Your task to perform on an android device: Clear the cart on costco. Add "alienware aurora" to the cart on costco, then select checkout. Image 0: 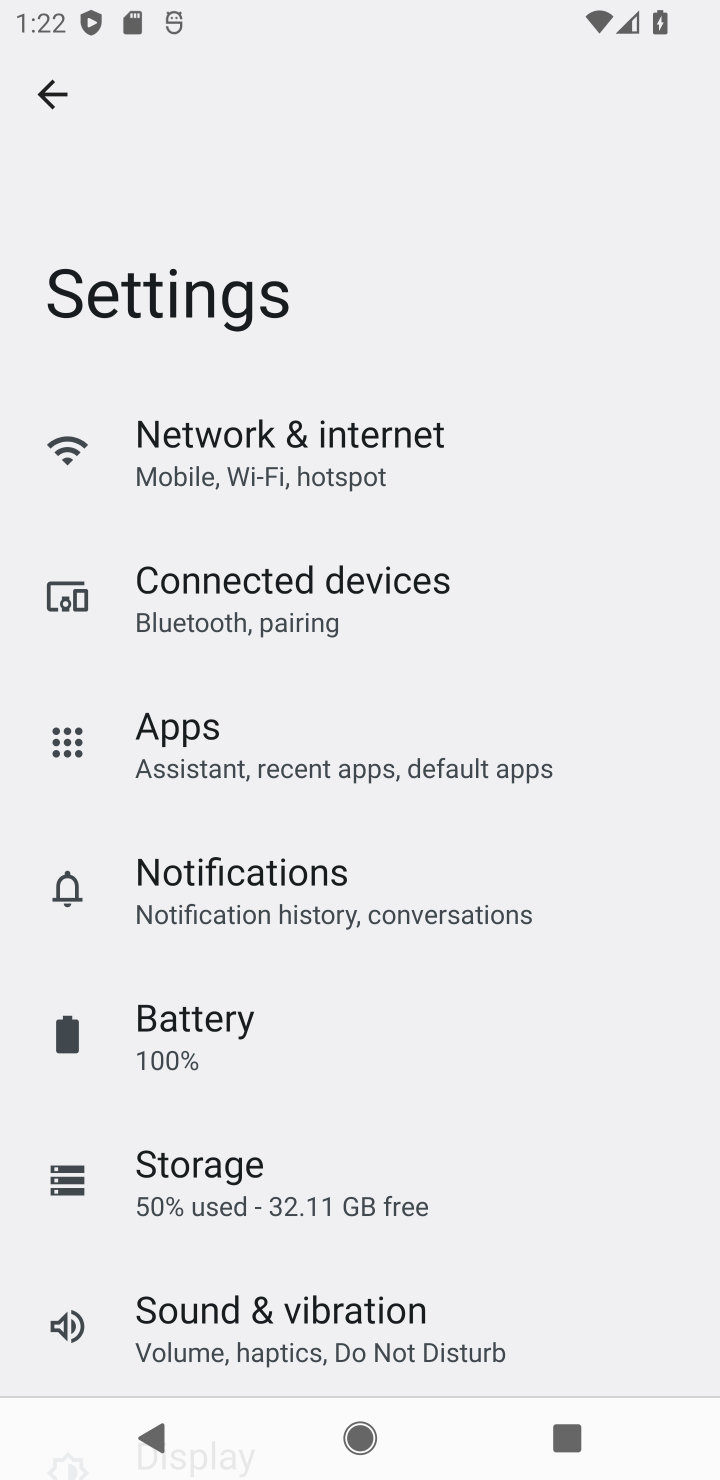
Step 0: press home button
Your task to perform on an android device: Clear the cart on costco. Add "alienware aurora" to the cart on costco, then select checkout. Image 1: 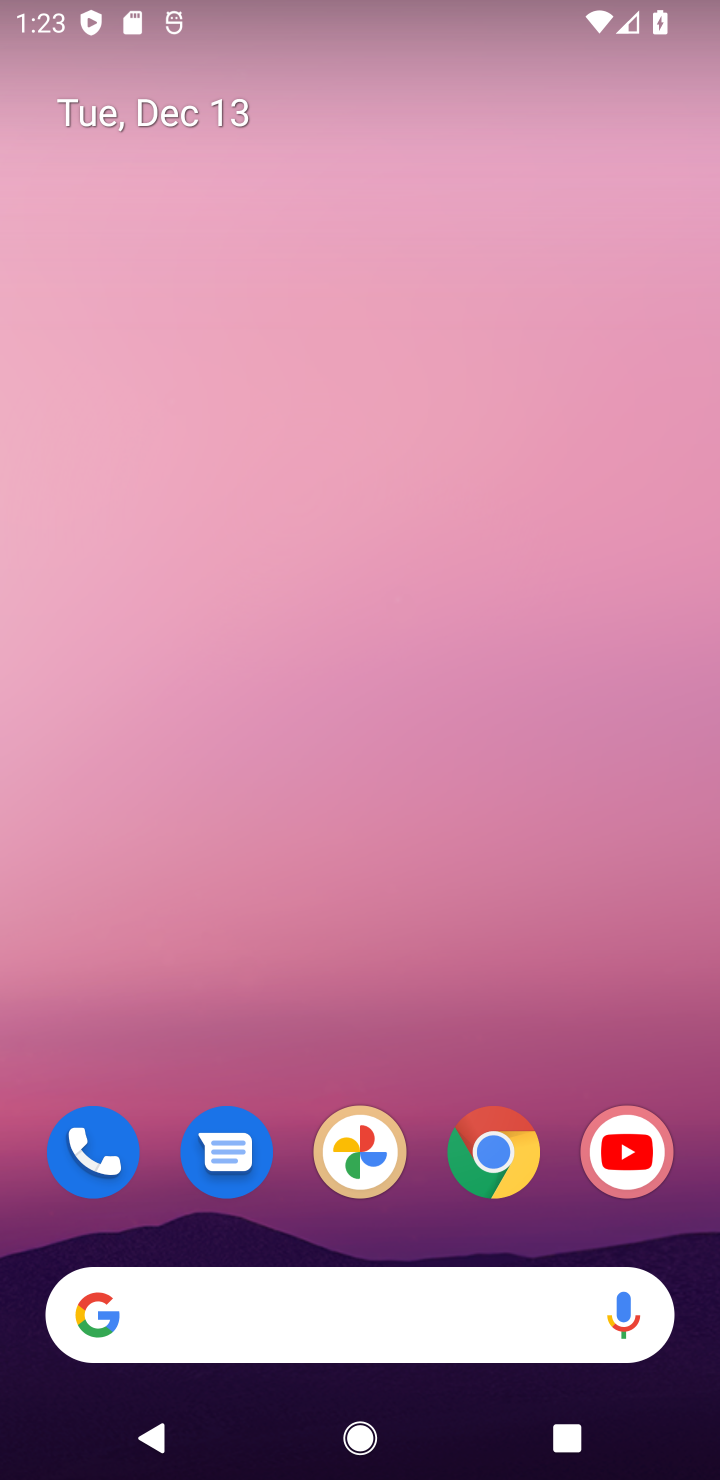
Step 1: drag from (284, 1284) to (284, 266)
Your task to perform on an android device: Clear the cart on costco. Add "alienware aurora" to the cart on costco, then select checkout. Image 2: 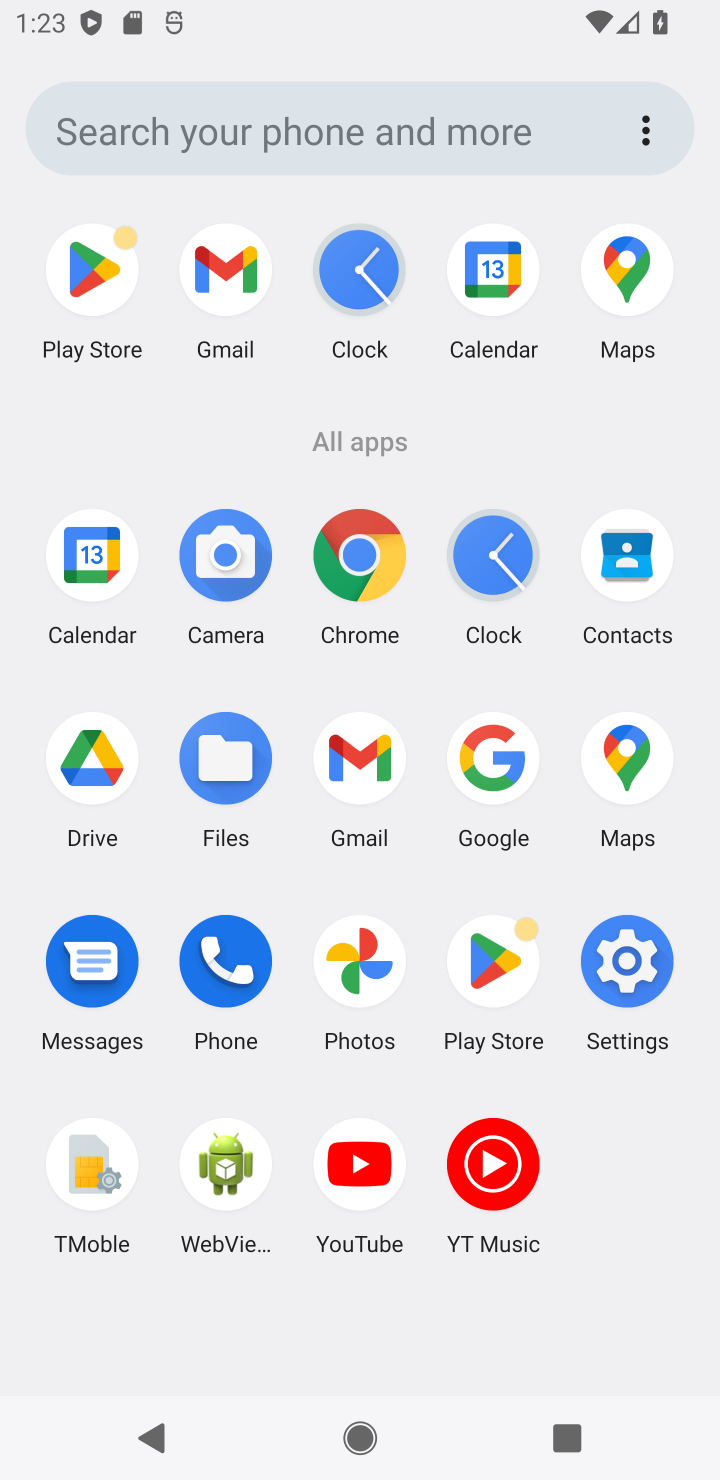
Step 2: click (476, 757)
Your task to perform on an android device: Clear the cart on costco. Add "alienware aurora" to the cart on costco, then select checkout. Image 3: 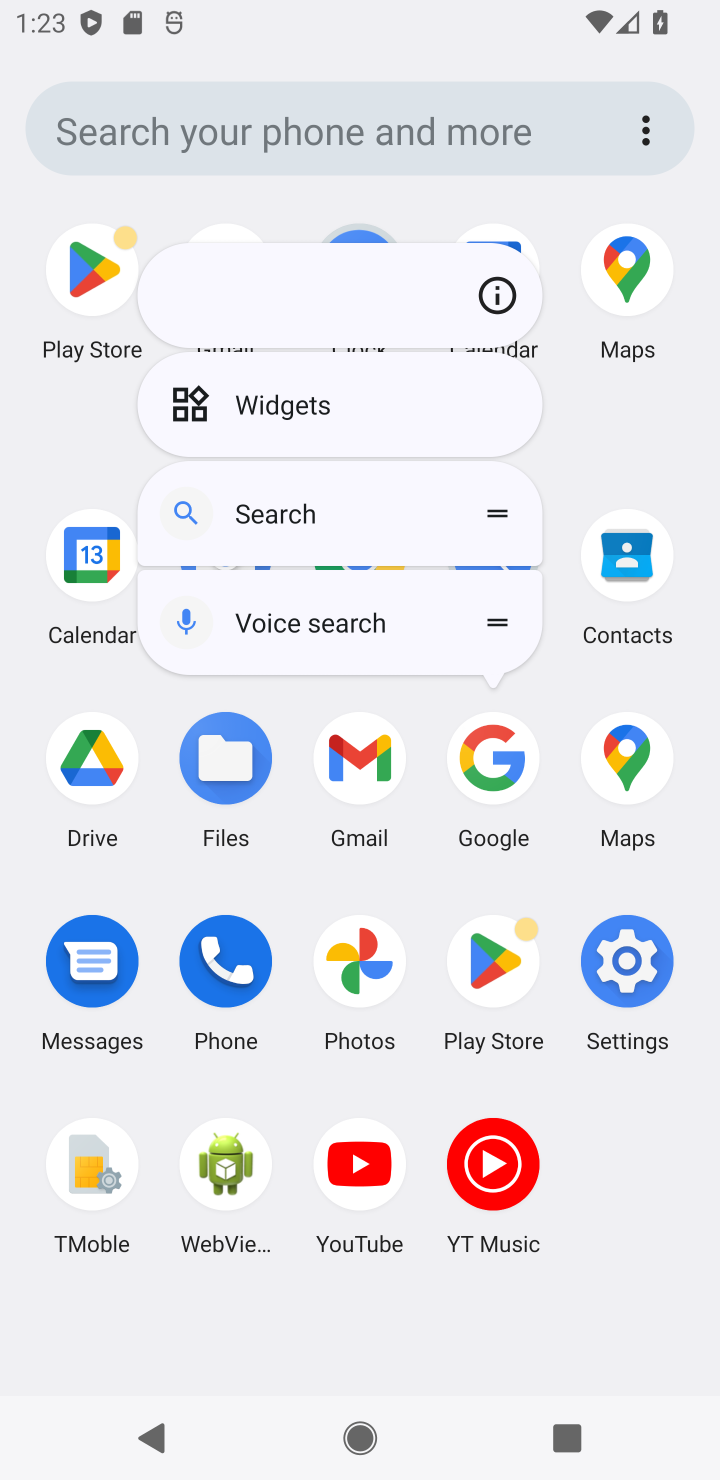
Step 3: click (491, 766)
Your task to perform on an android device: Clear the cart on costco. Add "alienware aurora" to the cart on costco, then select checkout. Image 4: 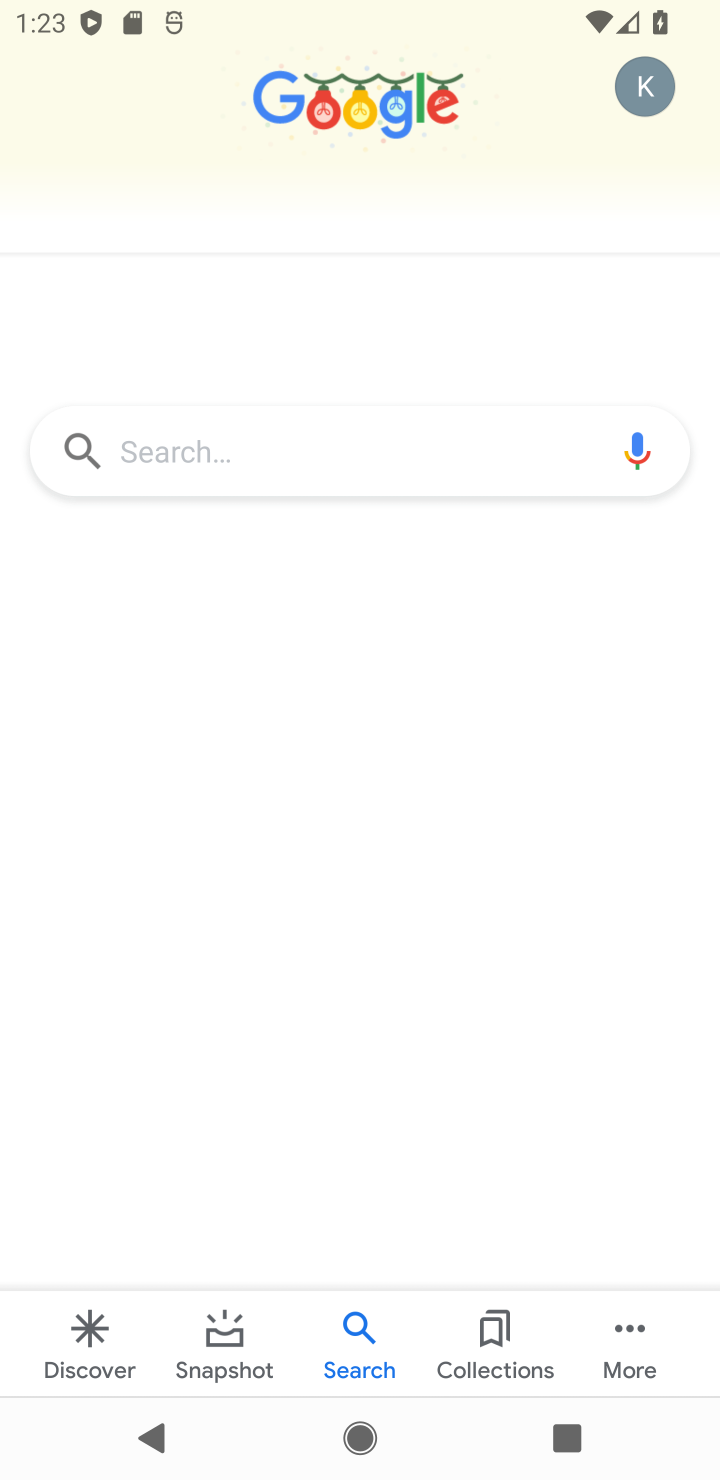
Step 4: click (210, 459)
Your task to perform on an android device: Clear the cart on costco. Add "alienware aurora" to the cart on costco, then select checkout. Image 5: 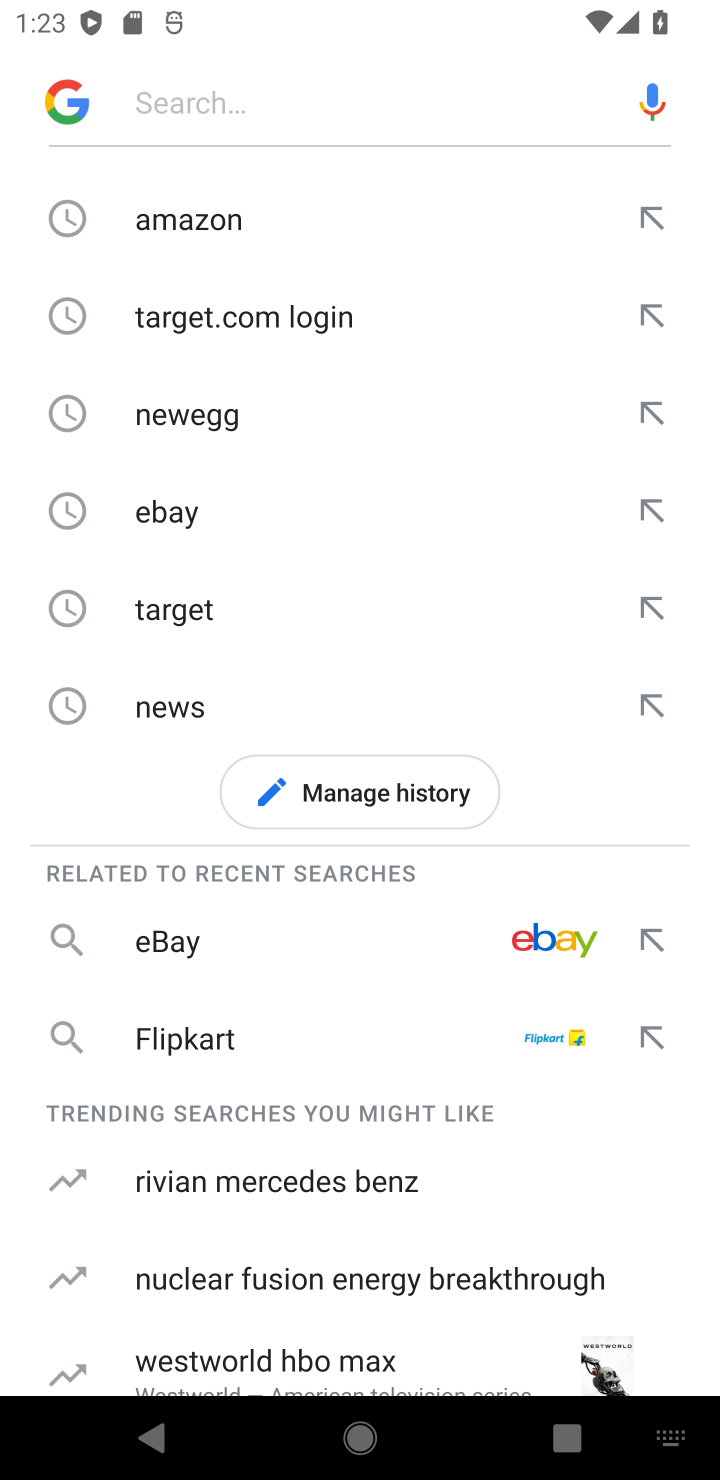
Step 5: type "costco"
Your task to perform on an android device: Clear the cart on costco. Add "alienware aurora" to the cart on costco, then select checkout. Image 6: 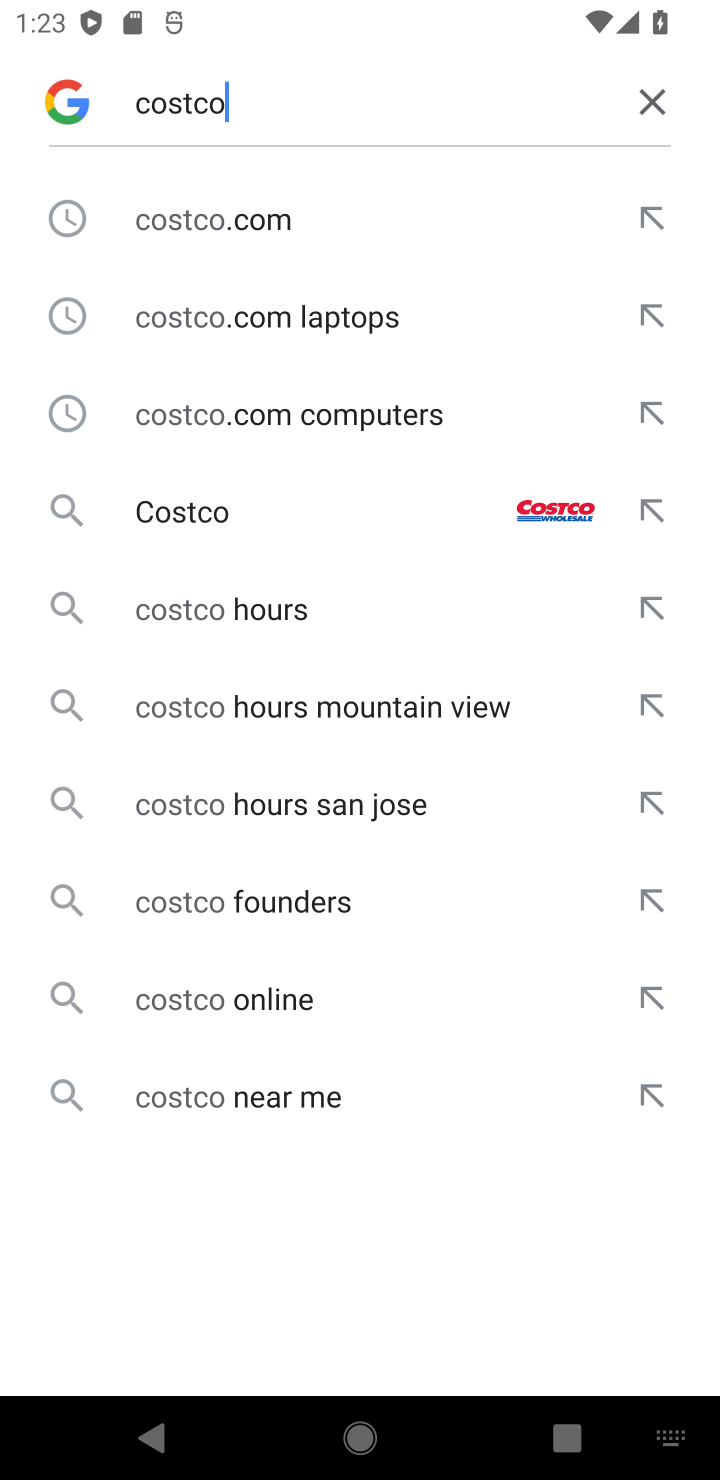
Step 6: click (240, 228)
Your task to perform on an android device: Clear the cart on costco. Add "alienware aurora" to the cart on costco, then select checkout. Image 7: 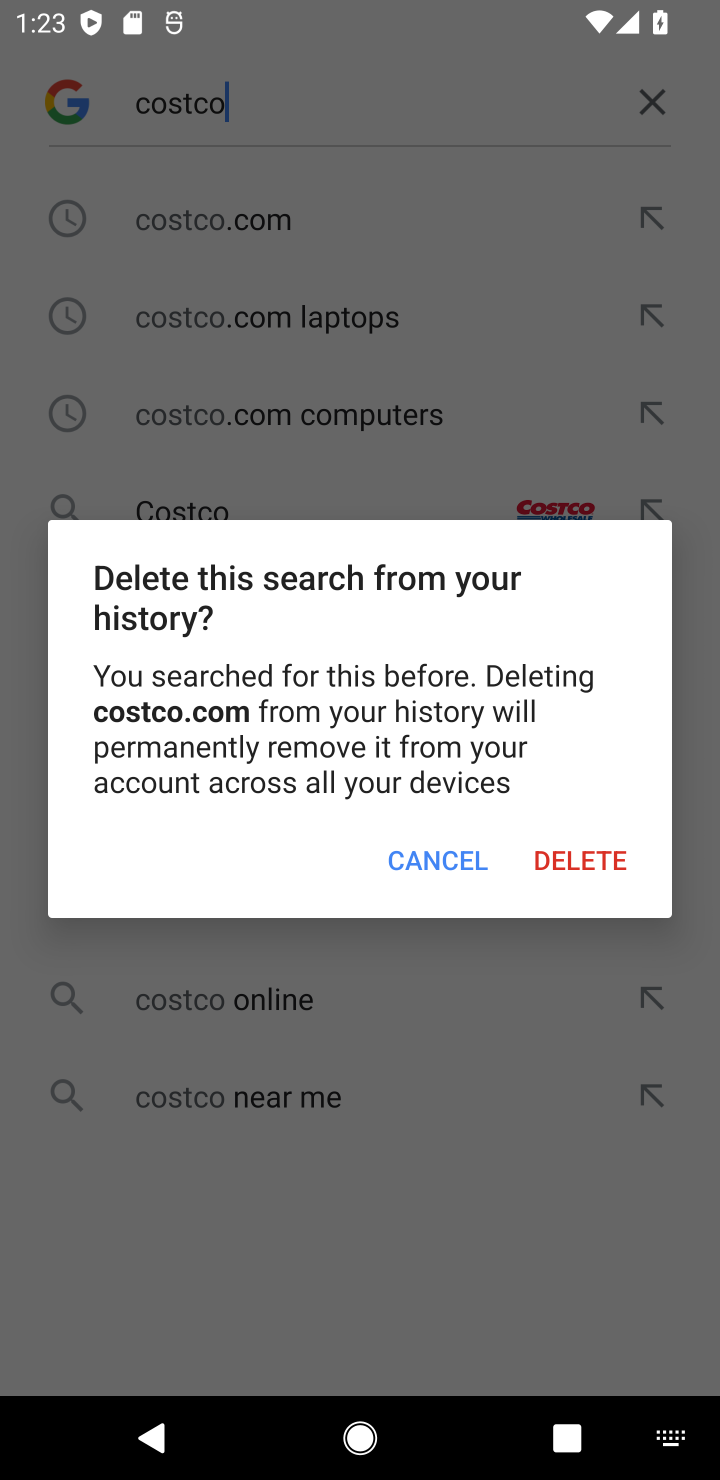
Step 7: click (419, 873)
Your task to perform on an android device: Clear the cart on costco. Add "alienware aurora" to the cart on costco, then select checkout. Image 8: 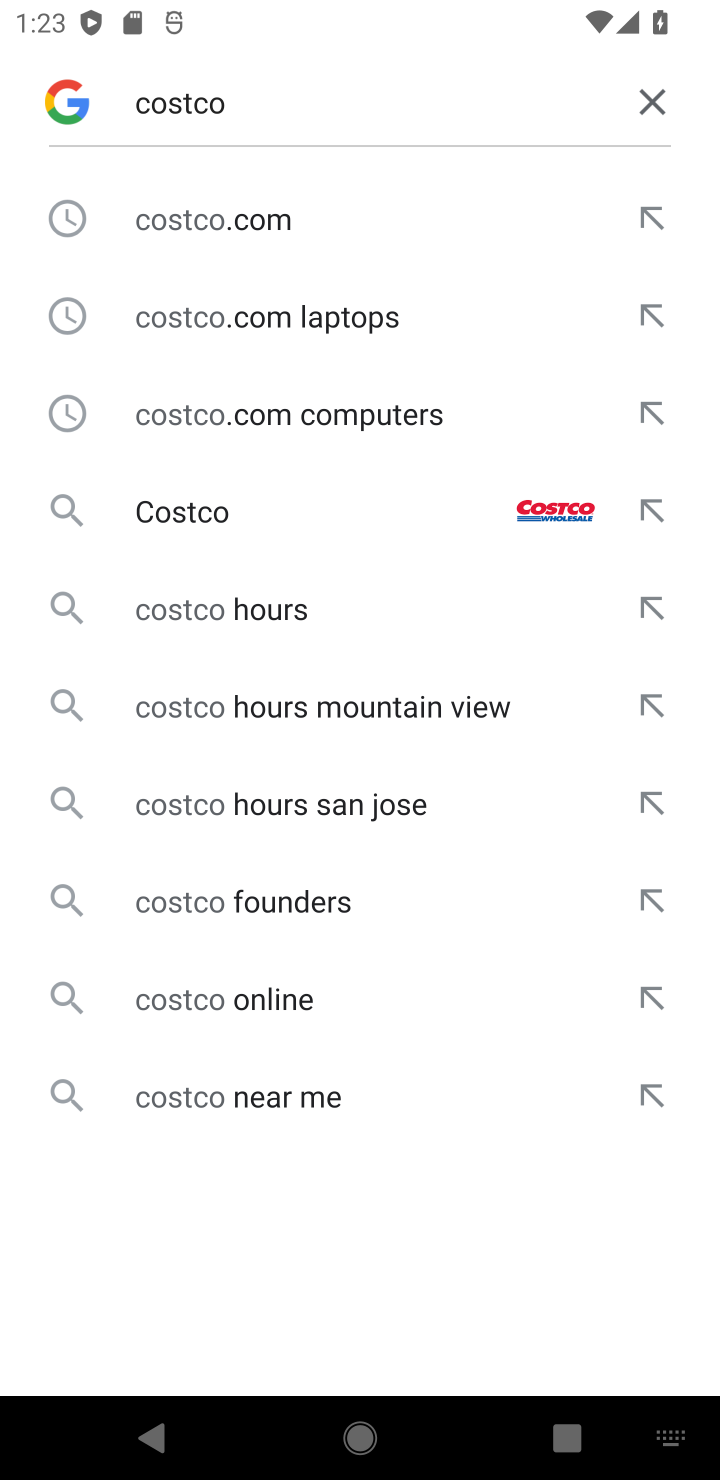
Step 8: click (184, 224)
Your task to perform on an android device: Clear the cart on costco. Add "alienware aurora" to the cart on costco, then select checkout. Image 9: 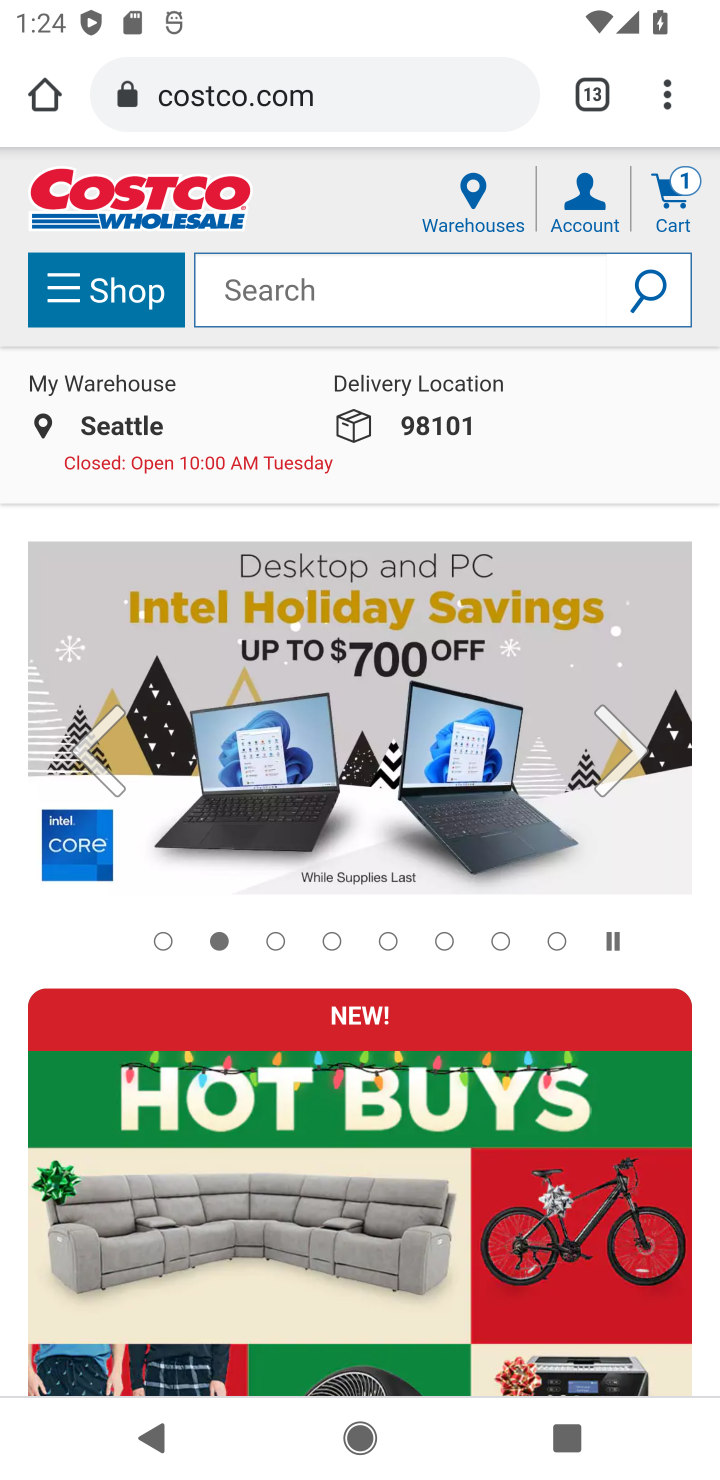
Step 9: click (676, 192)
Your task to perform on an android device: Clear the cart on costco. Add "alienware aurora" to the cart on costco, then select checkout. Image 10: 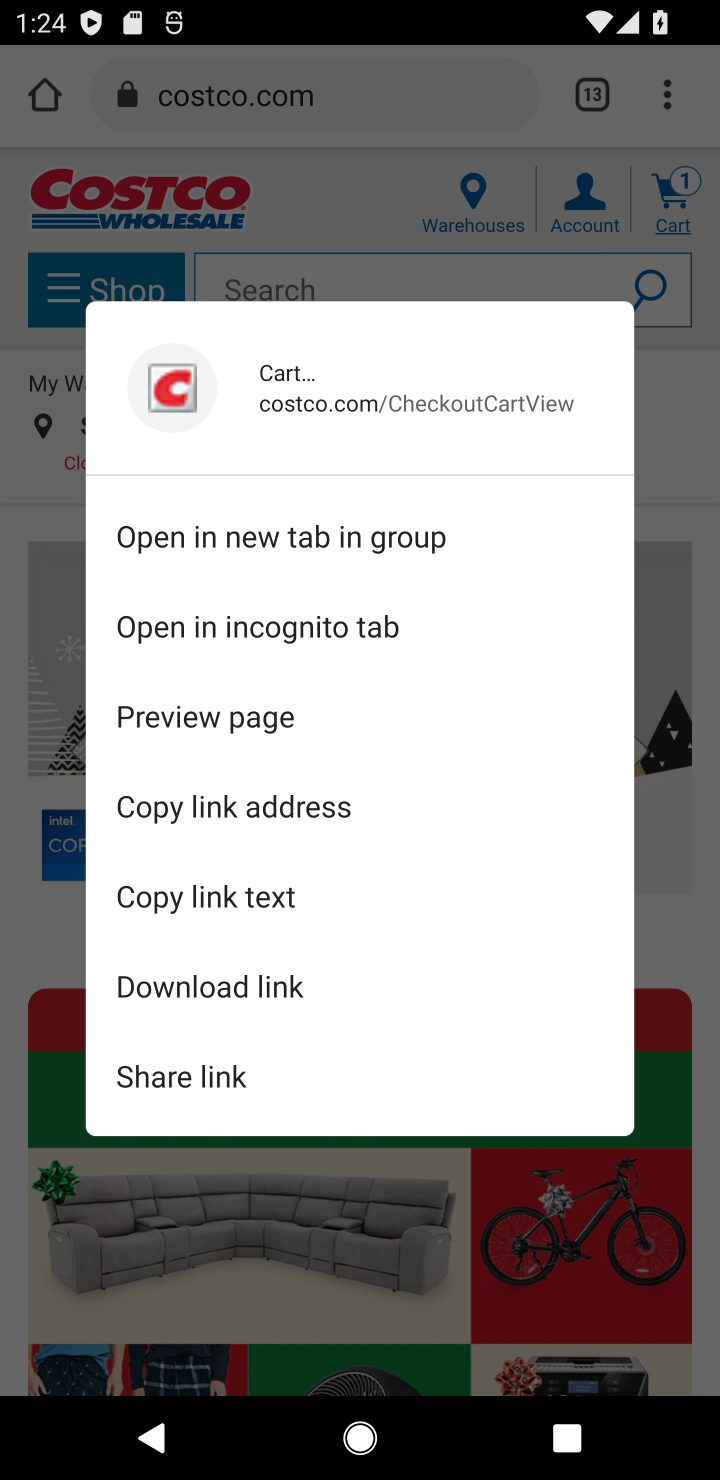
Step 10: click (665, 460)
Your task to perform on an android device: Clear the cart on costco. Add "alienware aurora" to the cart on costco, then select checkout. Image 11: 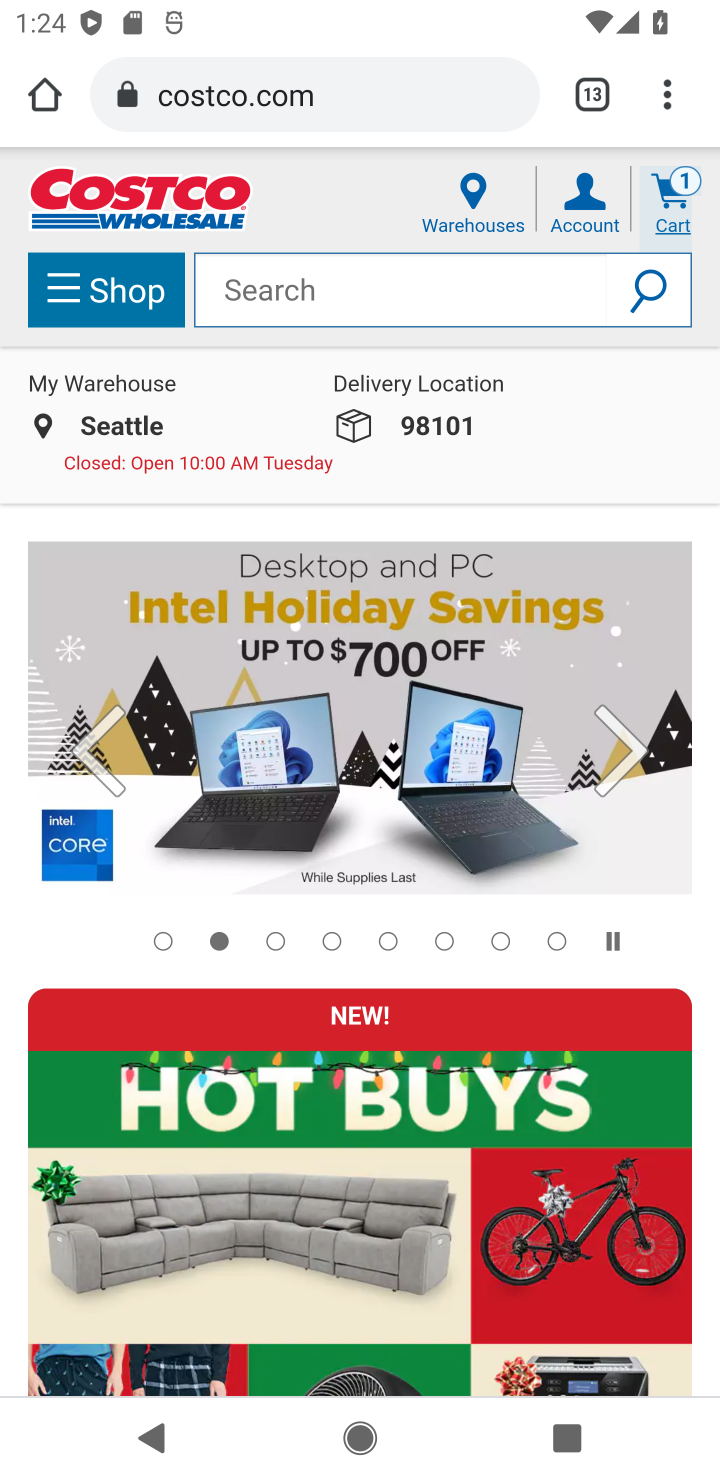
Step 11: click (661, 200)
Your task to perform on an android device: Clear the cart on costco. Add "alienware aurora" to the cart on costco, then select checkout. Image 12: 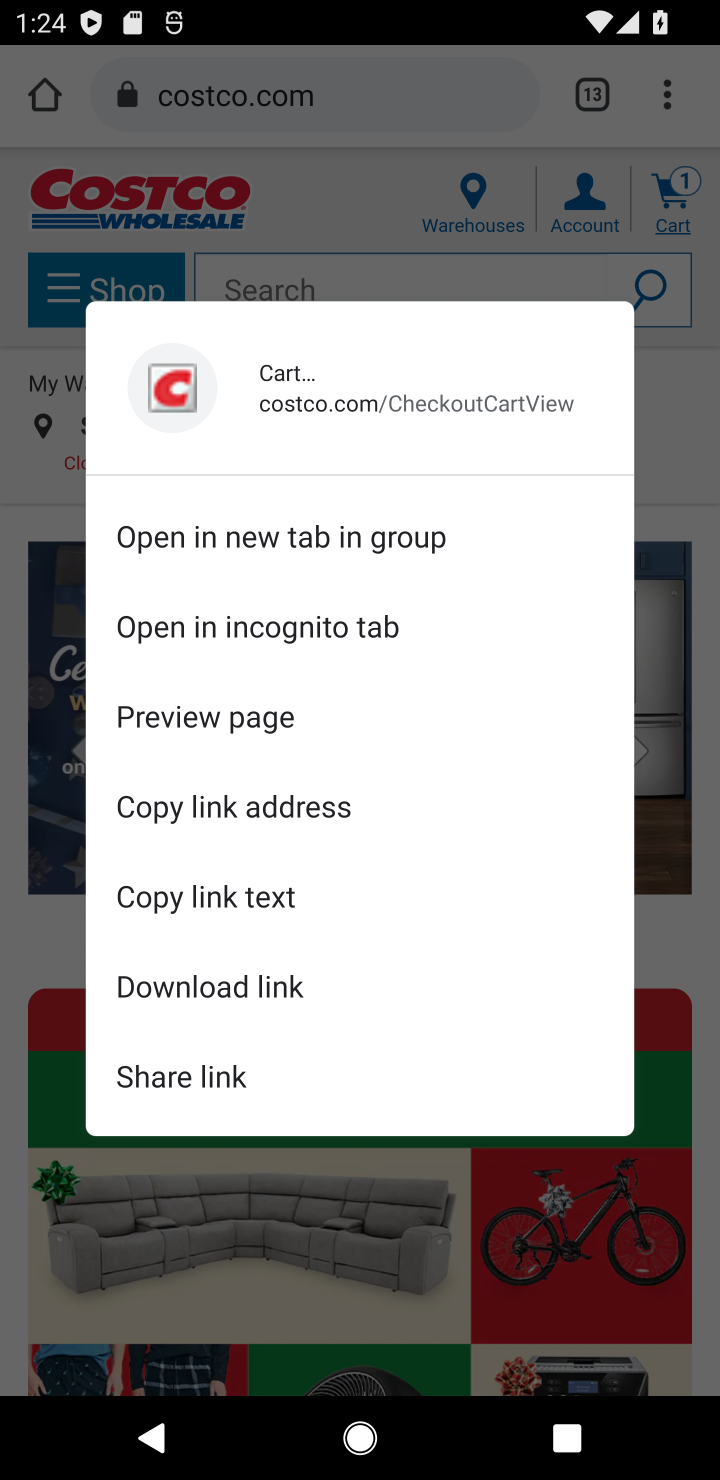
Step 12: click (652, 492)
Your task to perform on an android device: Clear the cart on costco. Add "alienware aurora" to the cart on costco, then select checkout. Image 13: 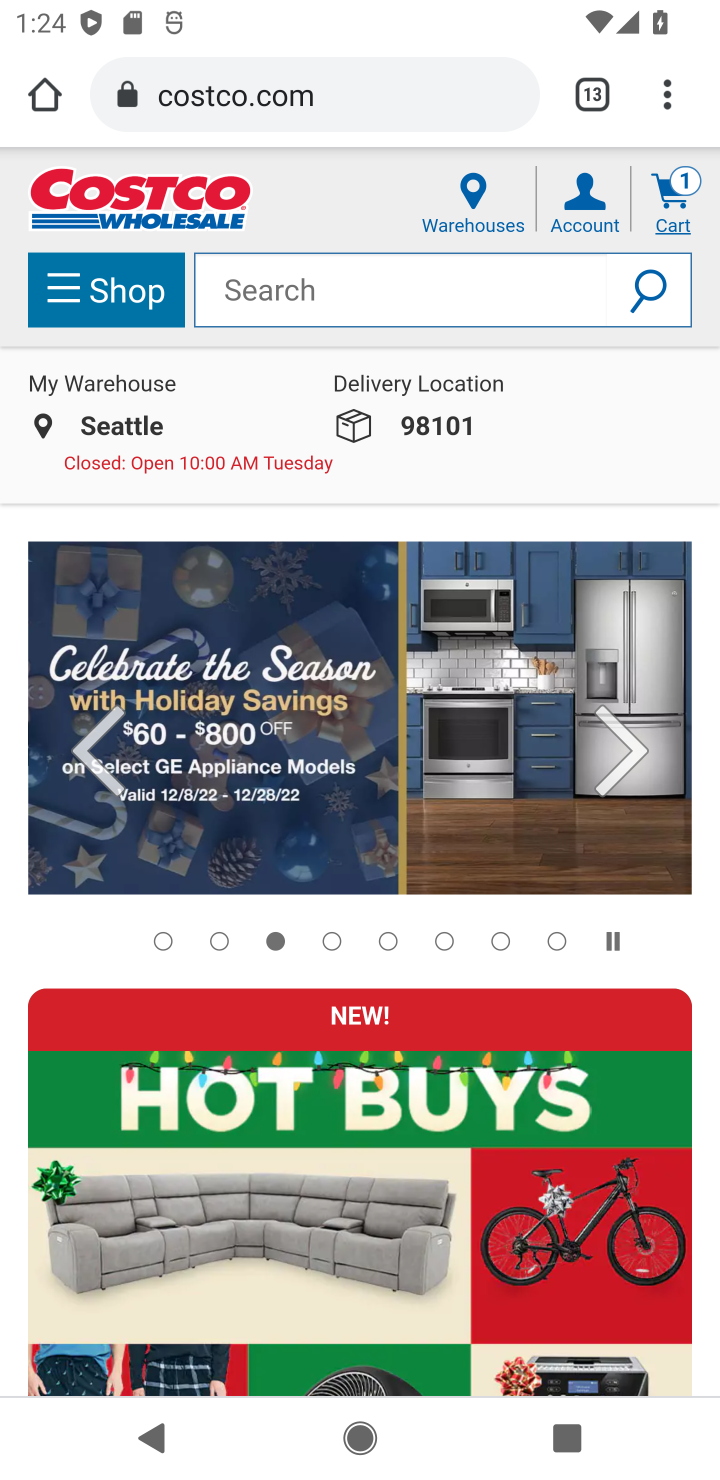
Step 13: click (662, 196)
Your task to perform on an android device: Clear the cart on costco. Add "alienware aurora" to the cart on costco, then select checkout. Image 14: 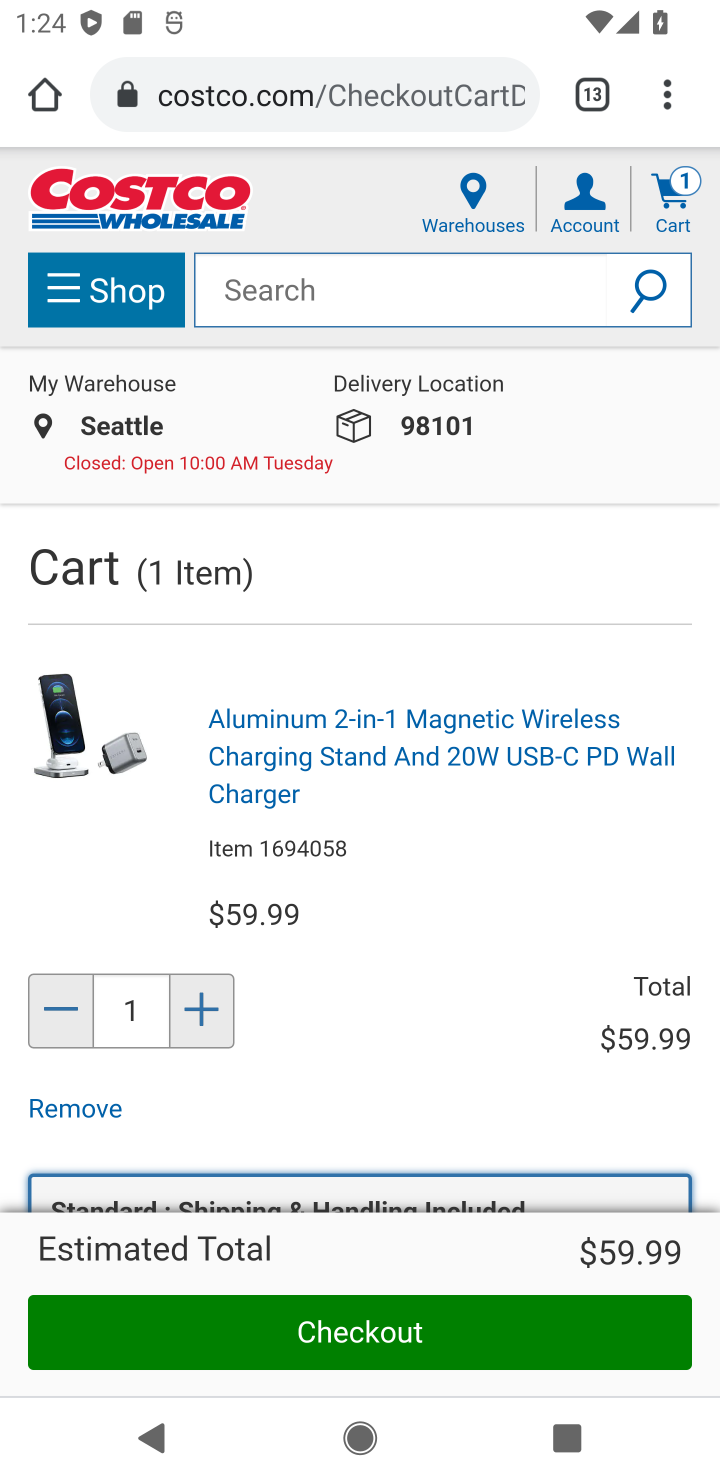
Step 14: click (87, 1109)
Your task to perform on an android device: Clear the cart on costco. Add "alienware aurora" to the cart on costco, then select checkout. Image 15: 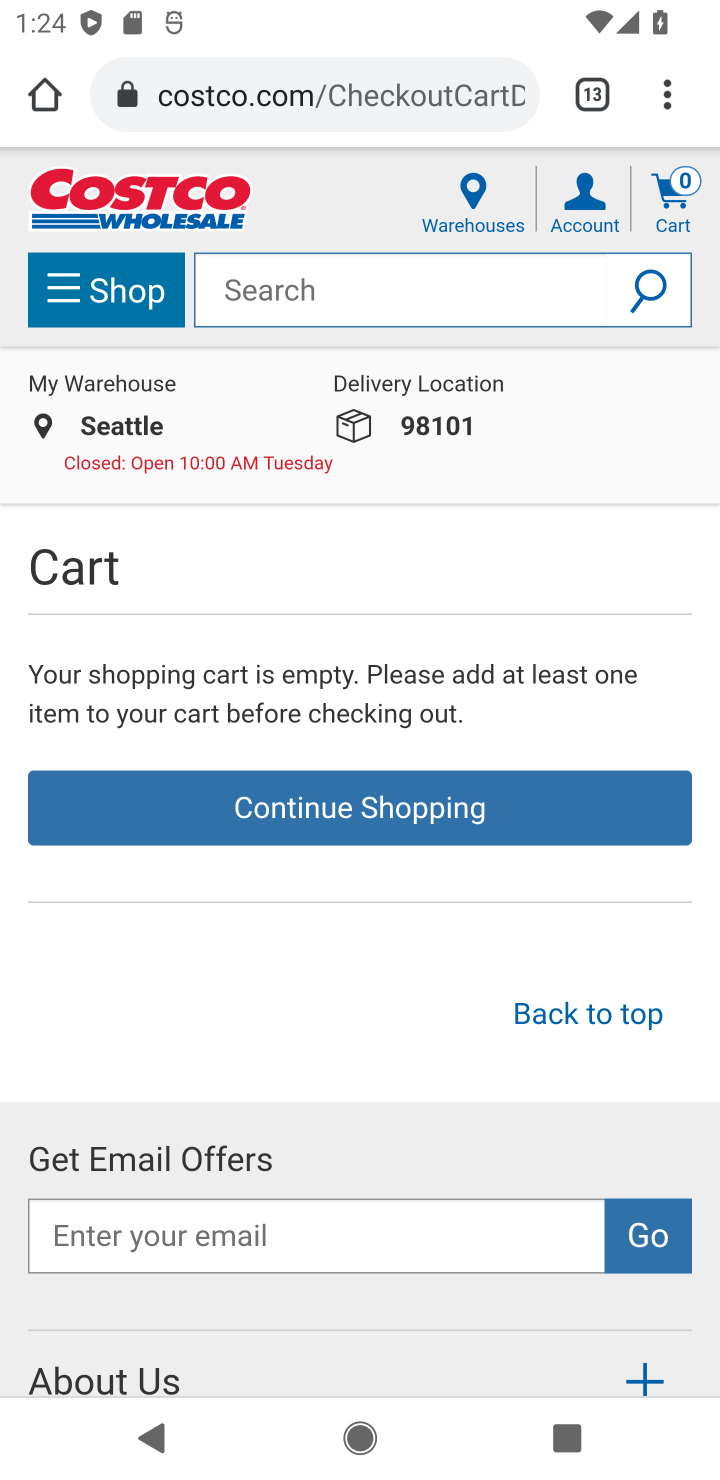
Step 15: click (397, 281)
Your task to perform on an android device: Clear the cart on costco. Add "alienware aurora" to the cart on costco, then select checkout. Image 16: 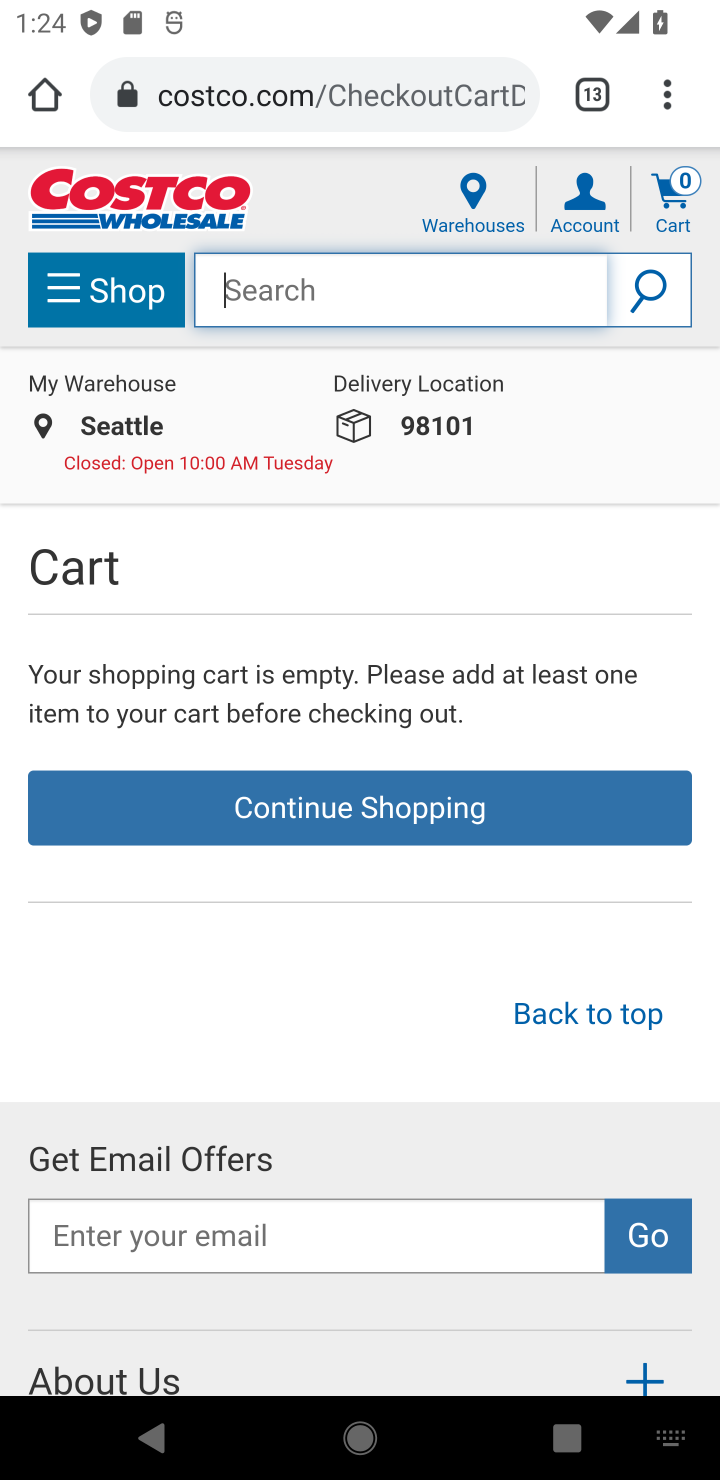
Step 16: type "alienware aurora"
Your task to perform on an android device: Clear the cart on costco. Add "alienware aurora" to the cart on costco, then select checkout. Image 17: 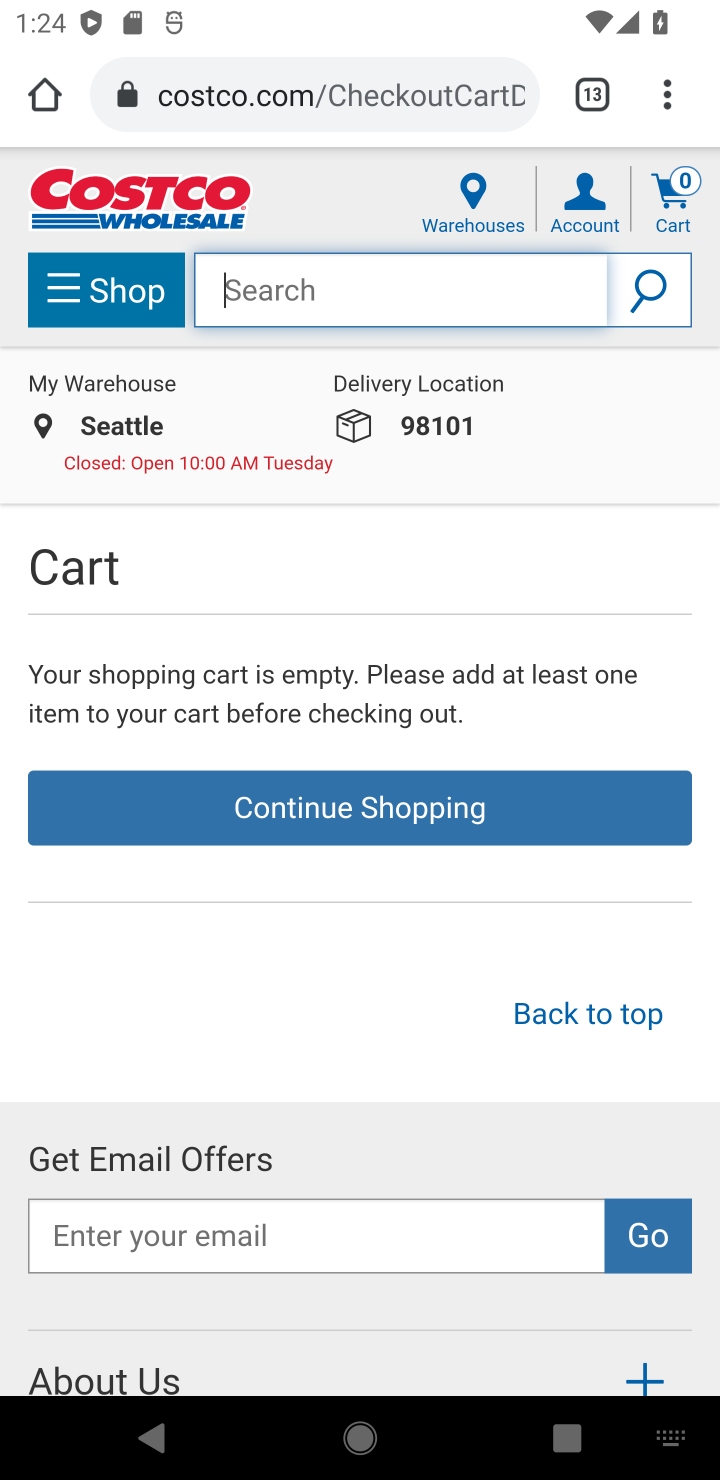
Step 17: click (666, 270)
Your task to perform on an android device: Clear the cart on costco. Add "alienware aurora" to the cart on costco, then select checkout. Image 18: 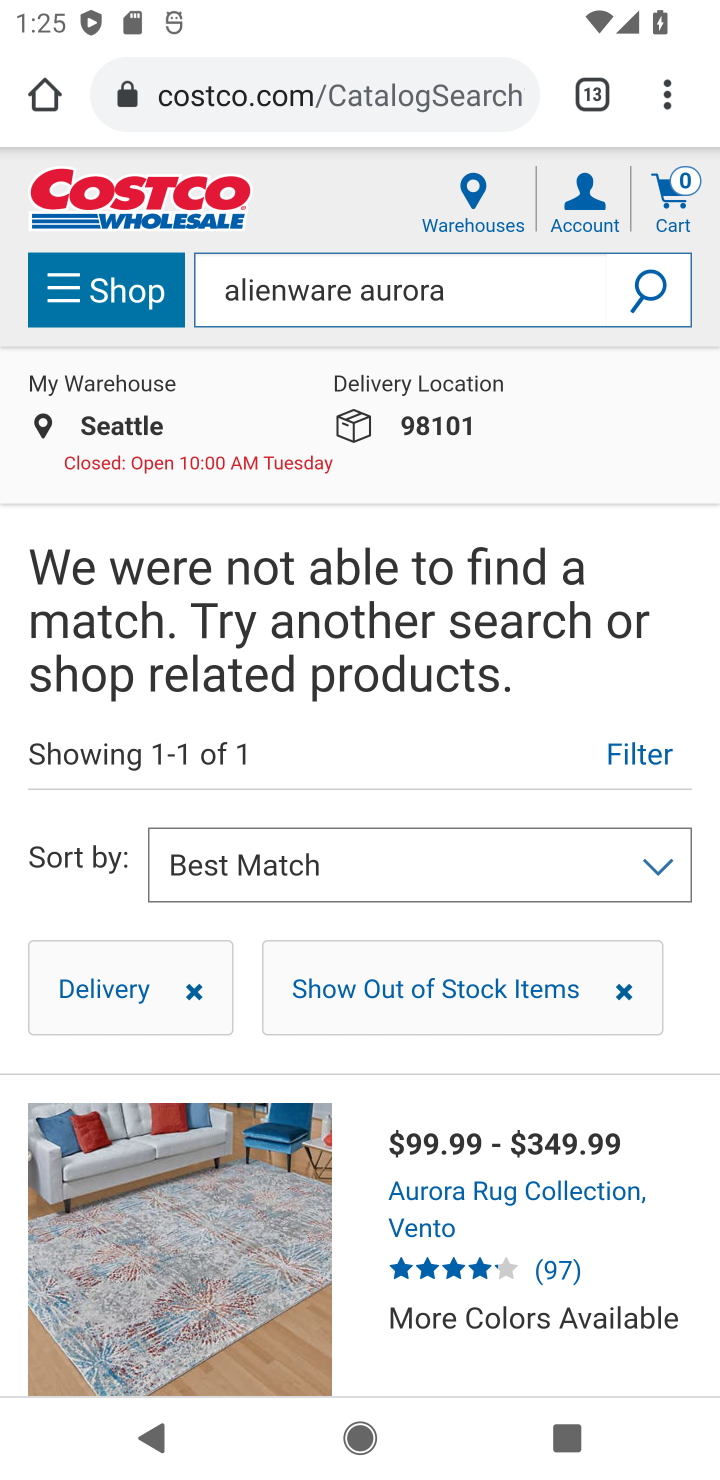
Step 18: drag from (454, 1271) to (435, 627)
Your task to perform on an android device: Clear the cart on costco. Add "alienware aurora" to the cart on costco, then select checkout. Image 19: 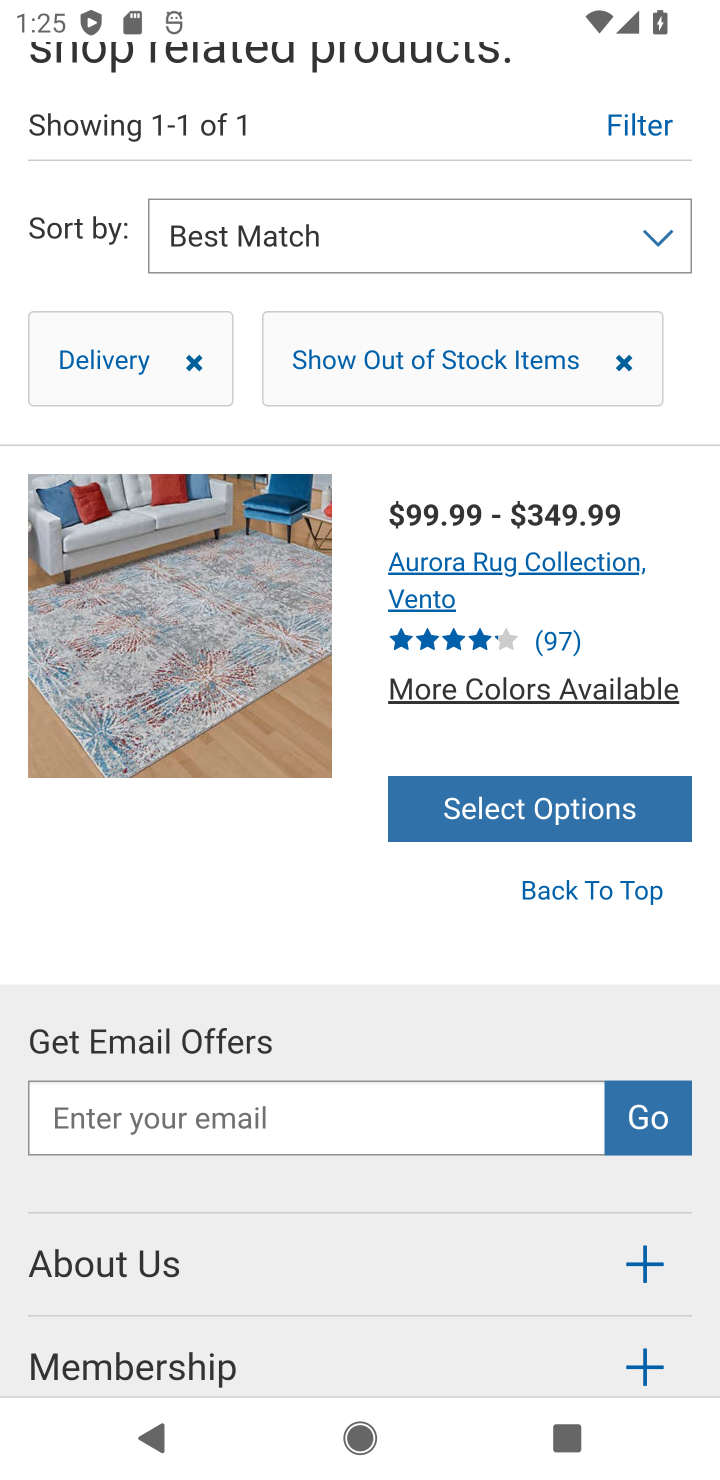
Step 19: click (457, 1316)
Your task to perform on an android device: Clear the cart on costco. Add "alienware aurora" to the cart on costco, then select checkout. Image 20: 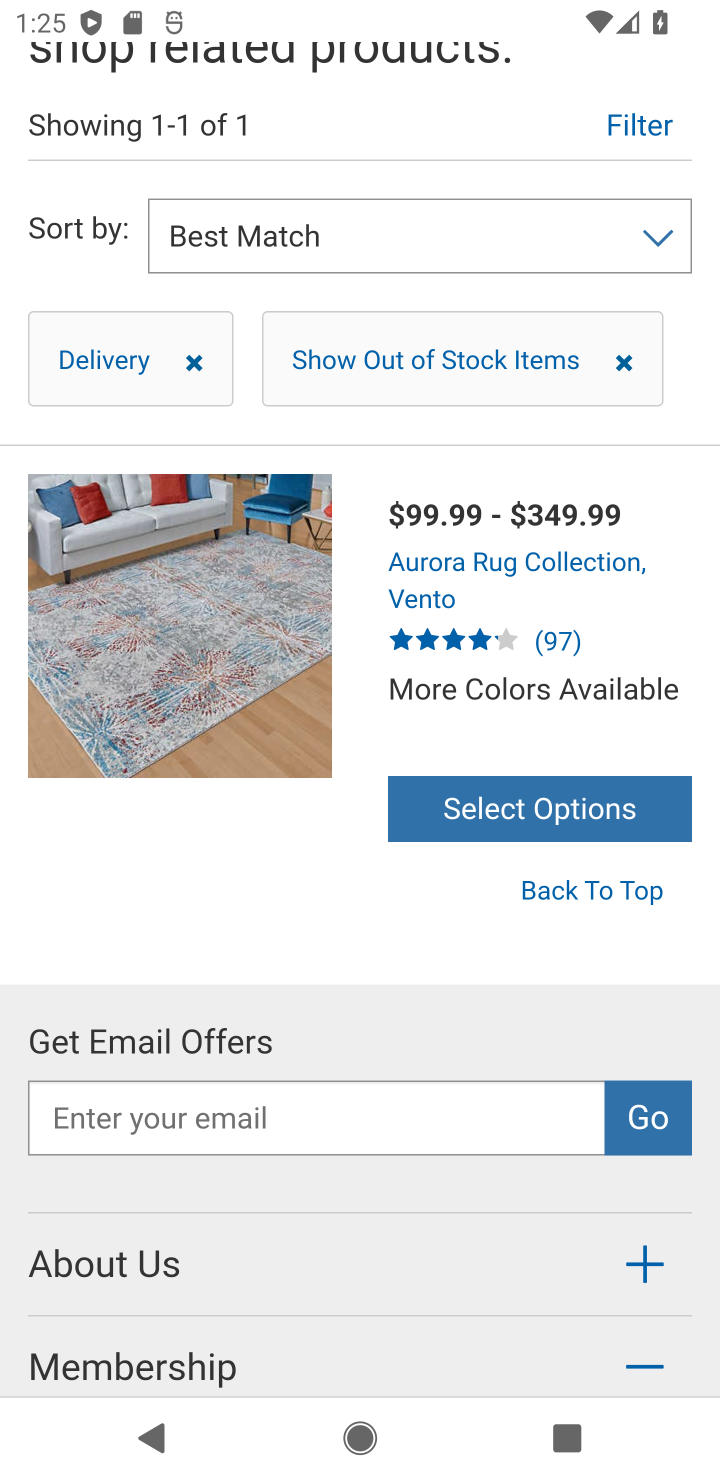
Step 20: task complete